Your task to perform on an android device: turn off priority inbox in the gmail app Image 0: 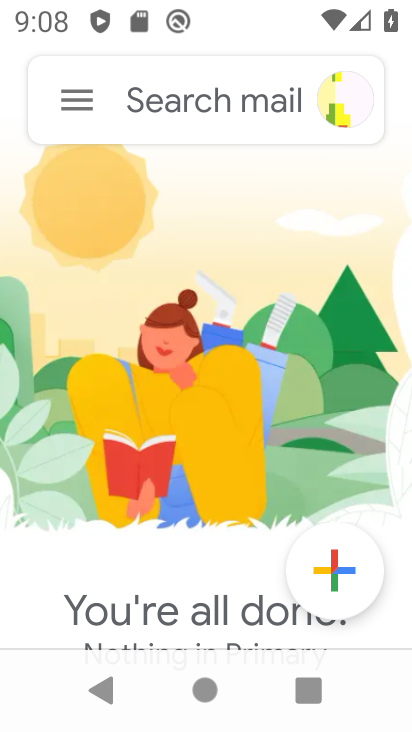
Step 0: press home button
Your task to perform on an android device: turn off priority inbox in the gmail app Image 1: 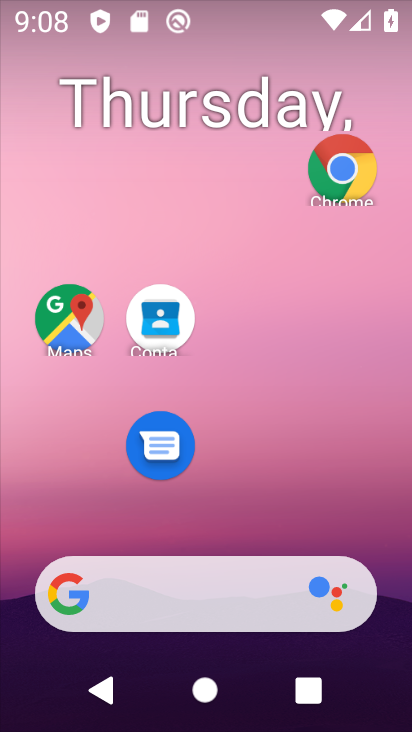
Step 1: drag from (176, 636) to (288, 177)
Your task to perform on an android device: turn off priority inbox in the gmail app Image 2: 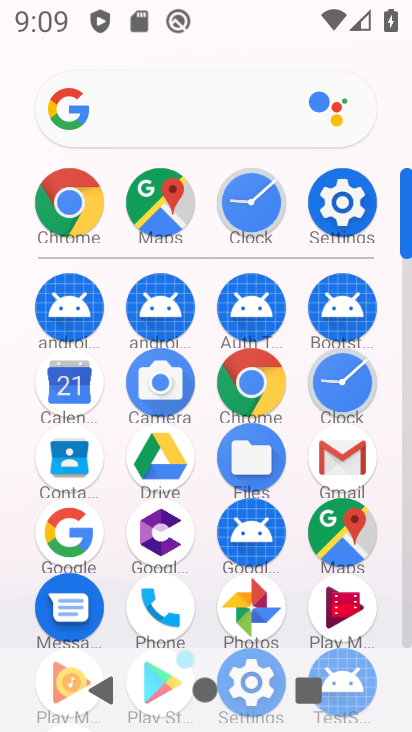
Step 2: click (333, 466)
Your task to perform on an android device: turn off priority inbox in the gmail app Image 3: 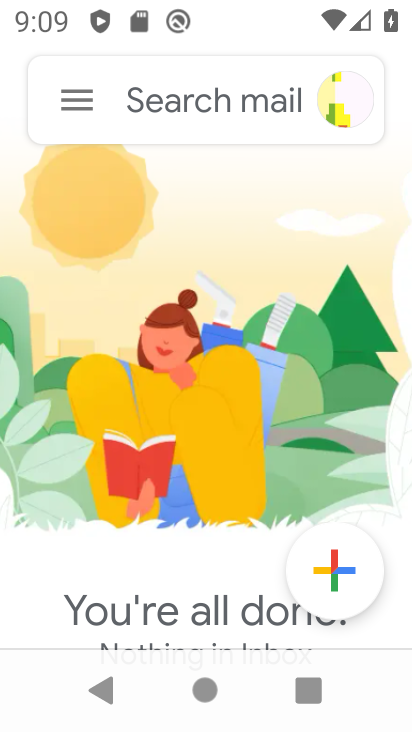
Step 3: click (82, 111)
Your task to perform on an android device: turn off priority inbox in the gmail app Image 4: 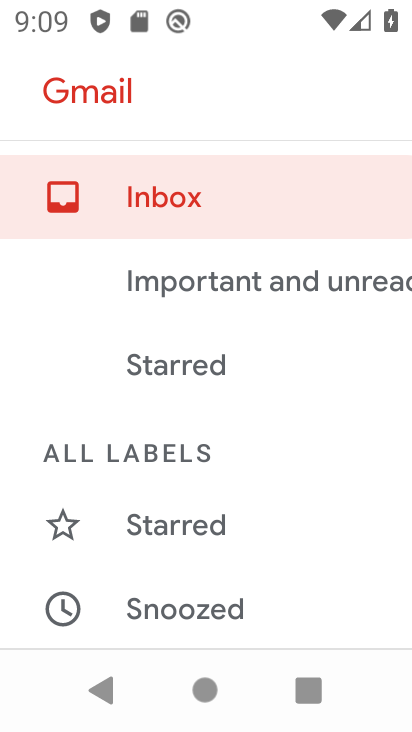
Step 4: drag from (218, 546) to (387, 296)
Your task to perform on an android device: turn off priority inbox in the gmail app Image 5: 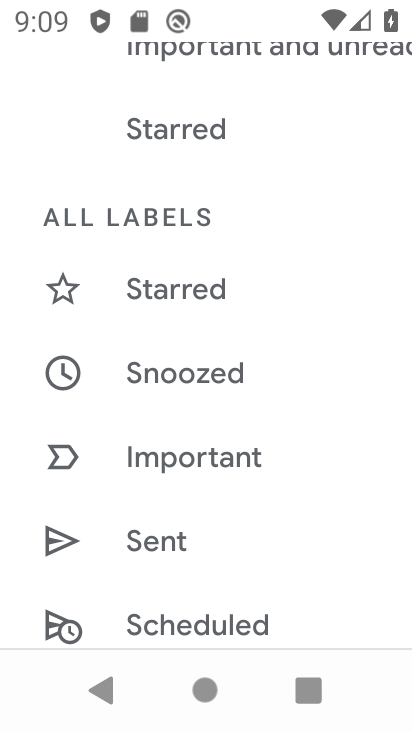
Step 5: drag from (257, 487) to (405, 185)
Your task to perform on an android device: turn off priority inbox in the gmail app Image 6: 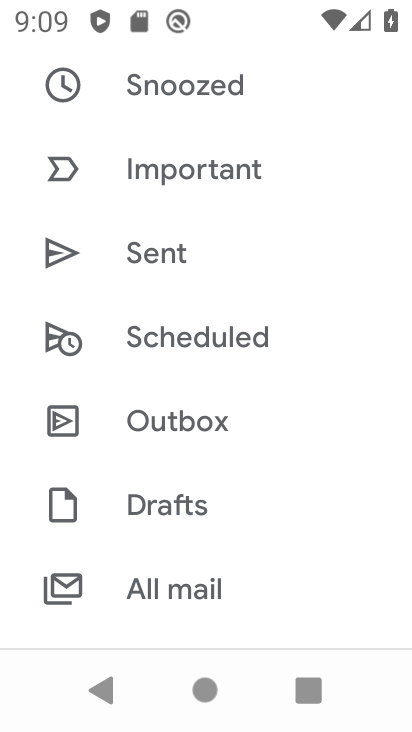
Step 6: drag from (93, 542) to (155, 357)
Your task to perform on an android device: turn off priority inbox in the gmail app Image 7: 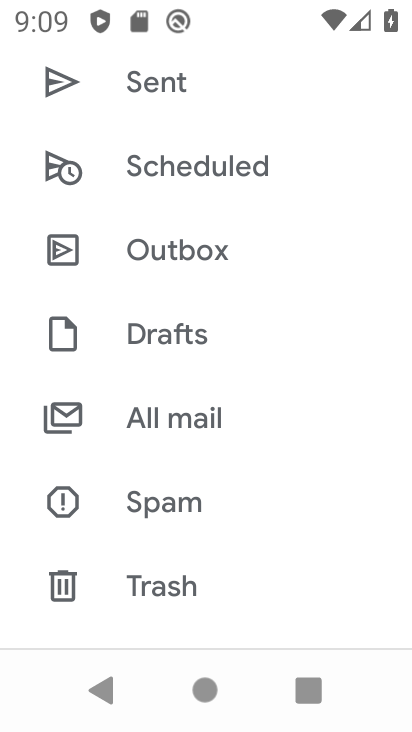
Step 7: drag from (144, 445) to (228, 223)
Your task to perform on an android device: turn off priority inbox in the gmail app Image 8: 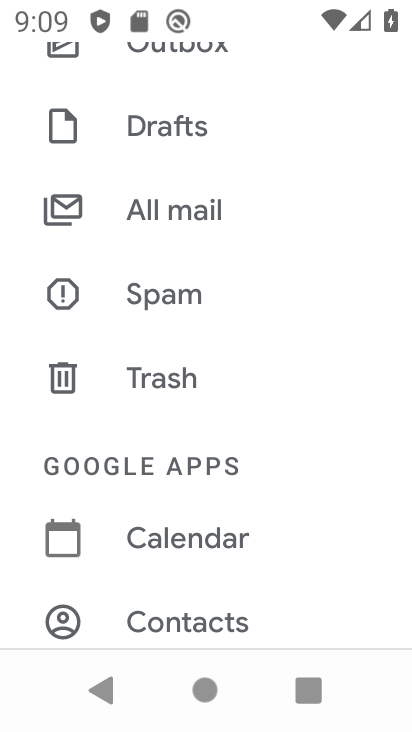
Step 8: drag from (148, 488) to (245, 317)
Your task to perform on an android device: turn off priority inbox in the gmail app Image 9: 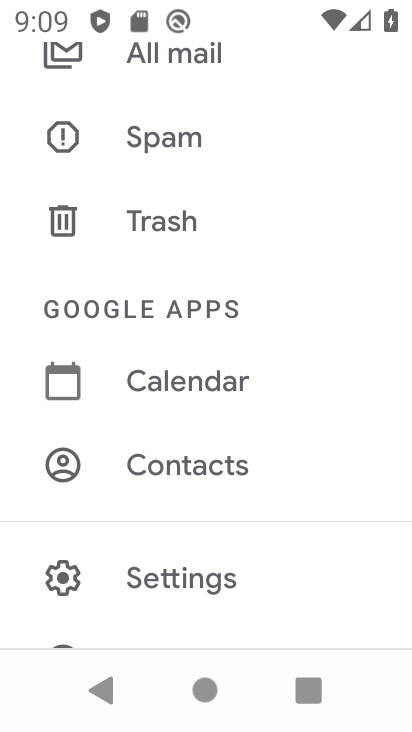
Step 9: click (146, 572)
Your task to perform on an android device: turn off priority inbox in the gmail app Image 10: 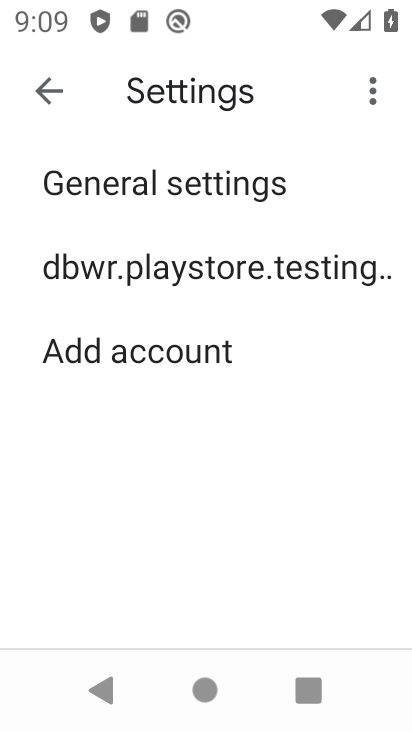
Step 10: click (189, 267)
Your task to perform on an android device: turn off priority inbox in the gmail app Image 11: 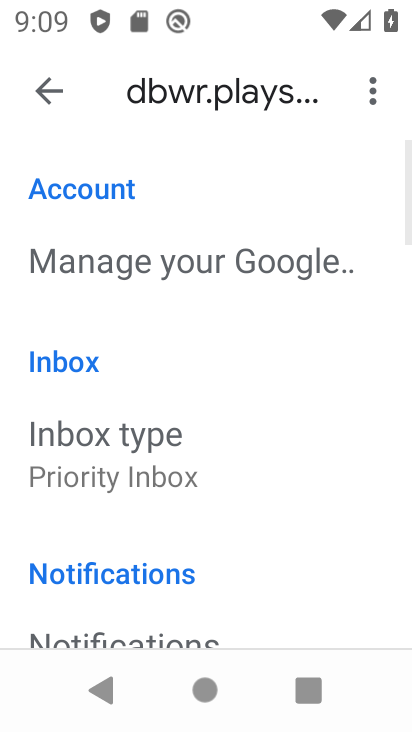
Step 11: drag from (174, 473) to (266, 219)
Your task to perform on an android device: turn off priority inbox in the gmail app Image 12: 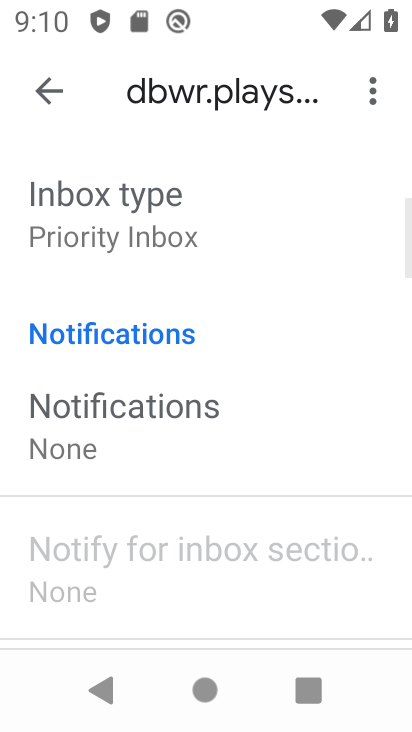
Step 12: drag from (162, 461) to (219, 293)
Your task to perform on an android device: turn off priority inbox in the gmail app Image 13: 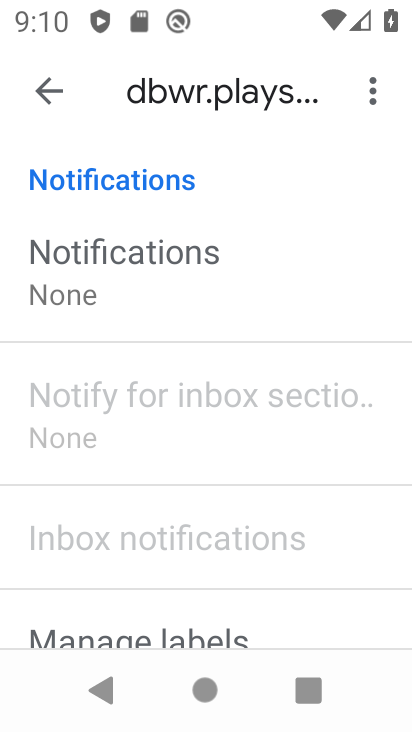
Step 13: drag from (131, 531) to (117, 592)
Your task to perform on an android device: turn off priority inbox in the gmail app Image 14: 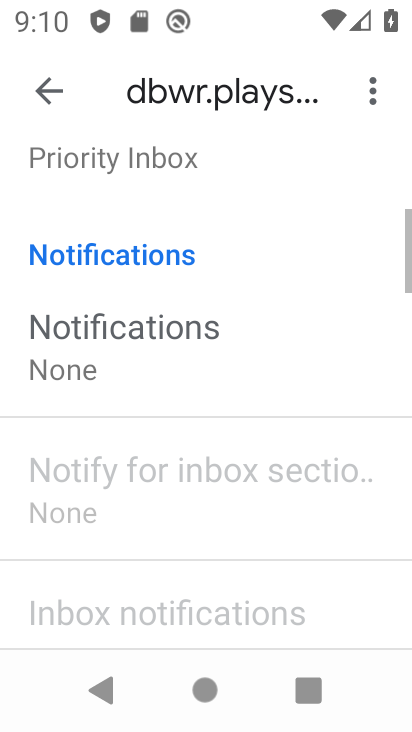
Step 14: drag from (256, 174) to (152, 543)
Your task to perform on an android device: turn off priority inbox in the gmail app Image 15: 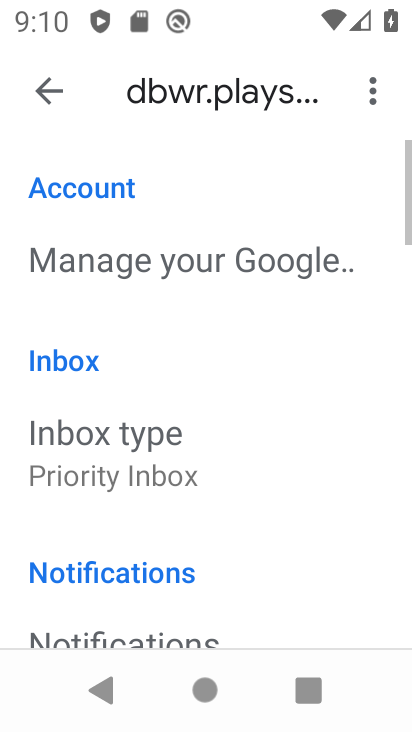
Step 15: drag from (251, 188) to (180, 418)
Your task to perform on an android device: turn off priority inbox in the gmail app Image 16: 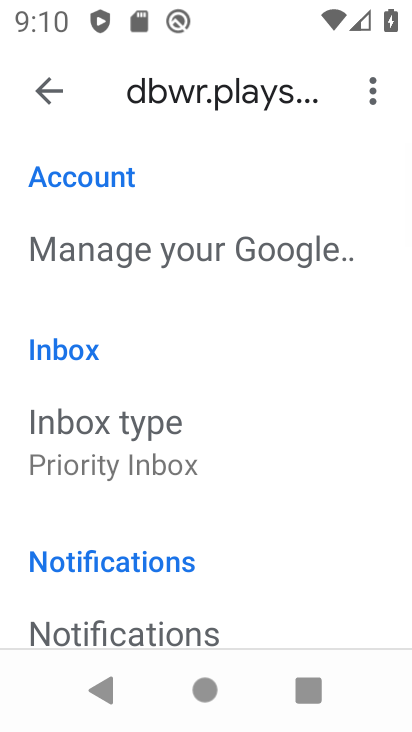
Step 16: drag from (247, 225) to (159, 410)
Your task to perform on an android device: turn off priority inbox in the gmail app Image 17: 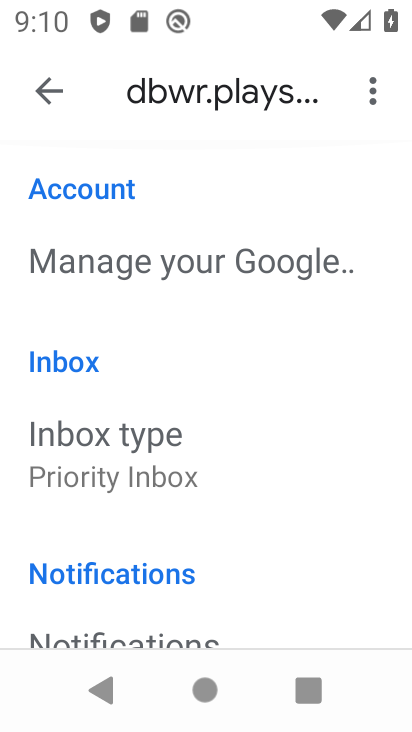
Step 17: click (132, 449)
Your task to perform on an android device: turn off priority inbox in the gmail app Image 18: 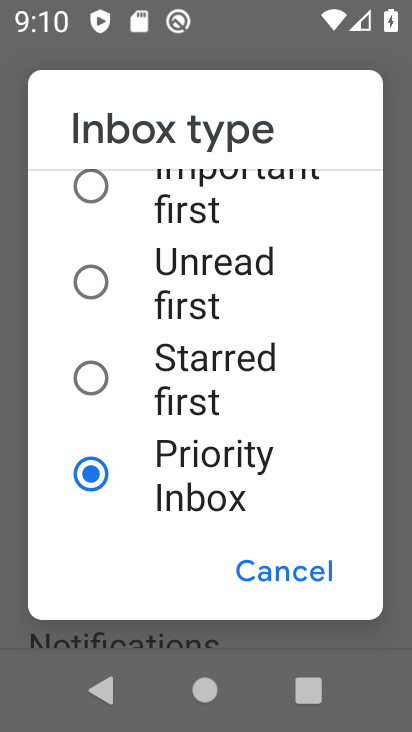
Step 18: drag from (188, 286) to (141, 503)
Your task to perform on an android device: turn off priority inbox in the gmail app Image 19: 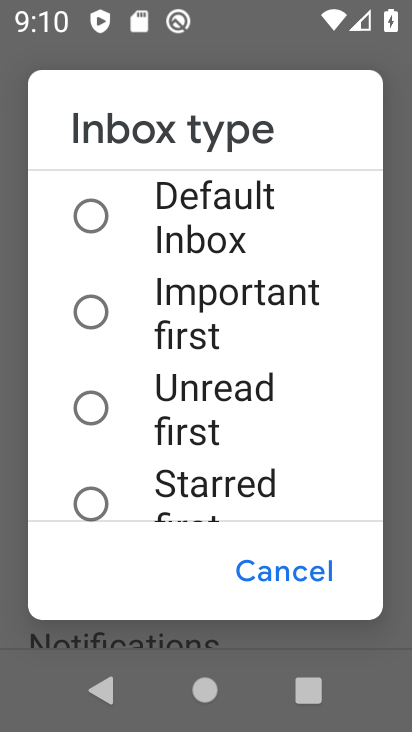
Step 19: click (218, 206)
Your task to perform on an android device: turn off priority inbox in the gmail app Image 20: 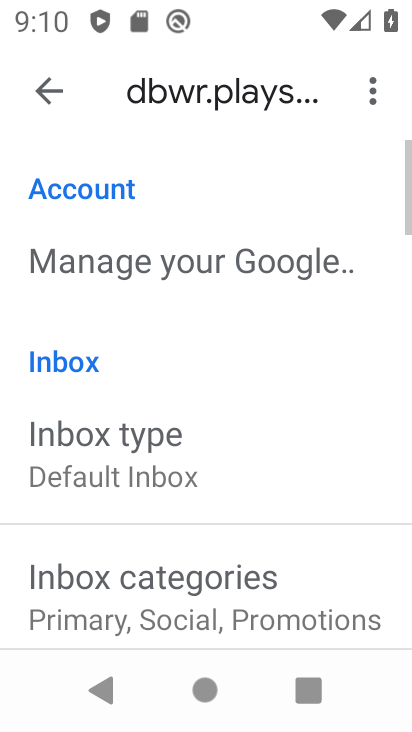
Step 20: task complete